Your task to perform on an android device: see creations saved in the google photos Image 0: 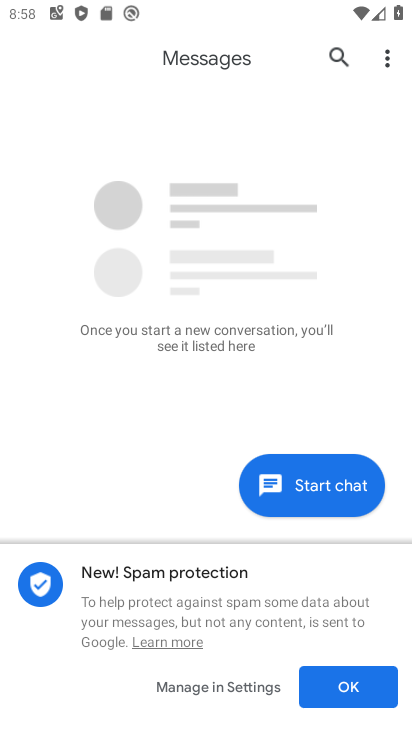
Step 0: press back button
Your task to perform on an android device: see creations saved in the google photos Image 1: 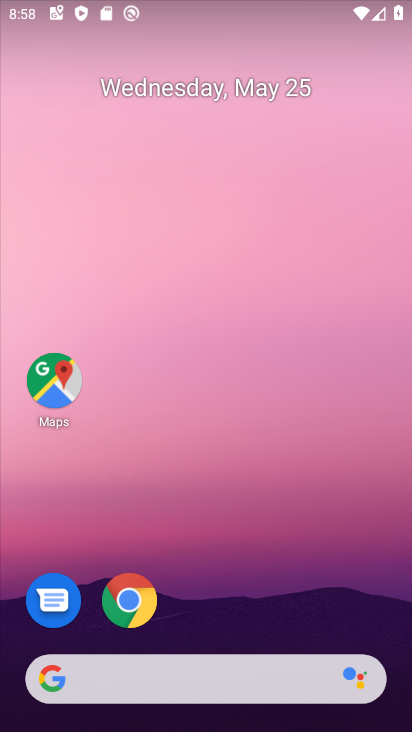
Step 1: drag from (251, 580) to (230, 1)
Your task to perform on an android device: see creations saved in the google photos Image 2: 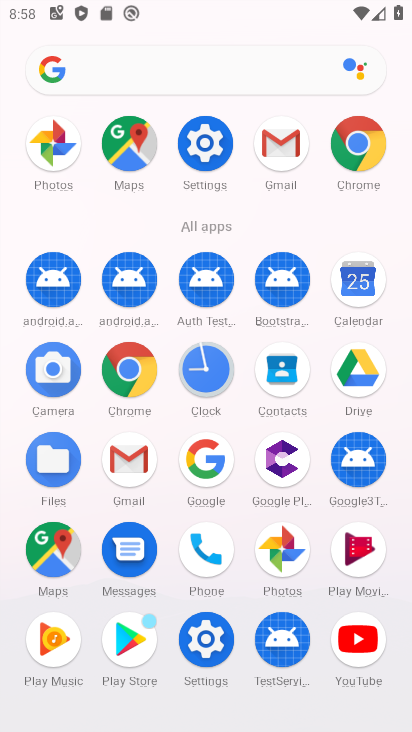
Step 2: click (281, 544)
Your task to perform on an android device: see creations saved in the google photos Image 3: 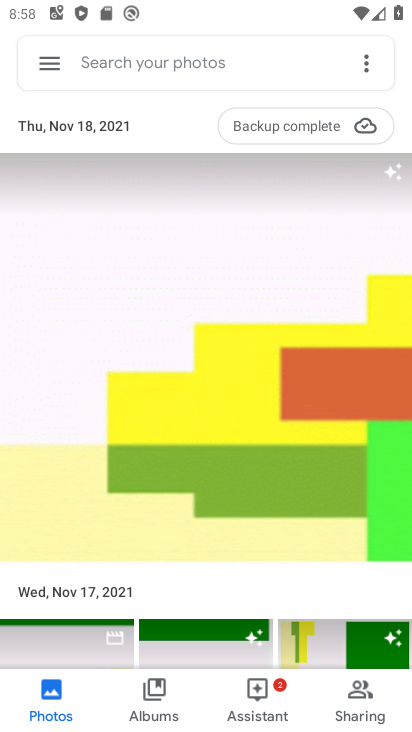
Step 3: click (72, 638)
Your task to perform on an android device: see creations saved in the google photos Image 4: 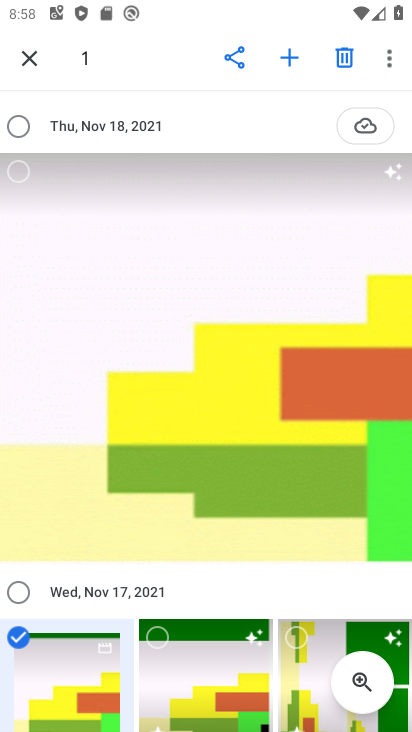
Step 4: click (52, 646)
Your task to perform on an android device: see creations saved in the google photos Image 5: 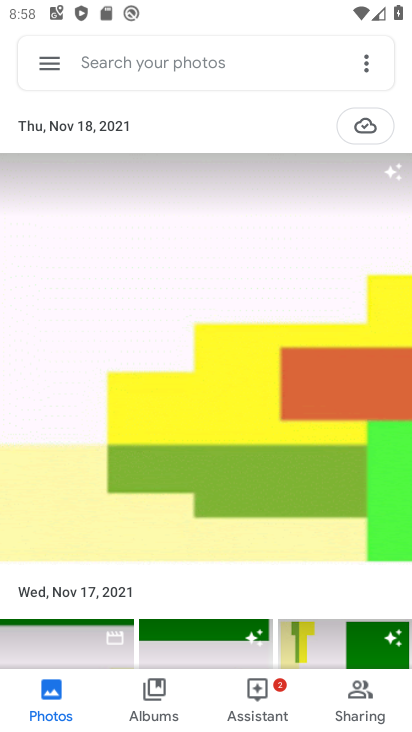
Step 5: task complete